Your task to perform on an android device: open a bookmark in the chrome app Image 0: 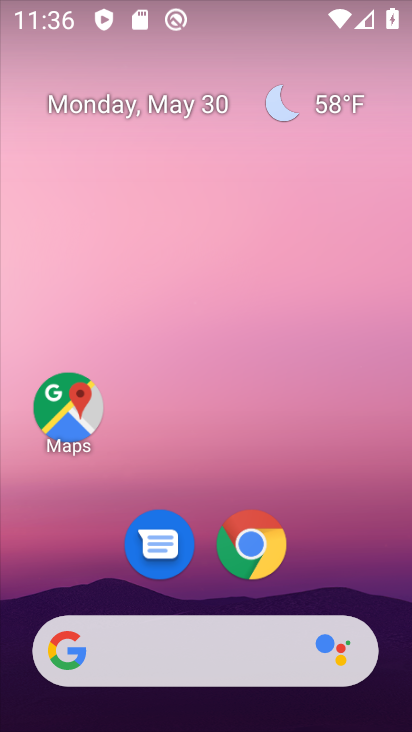
Step 0: task complete